Your task to perform on an android device: Open calendar and show me the third week of next month Image 0: 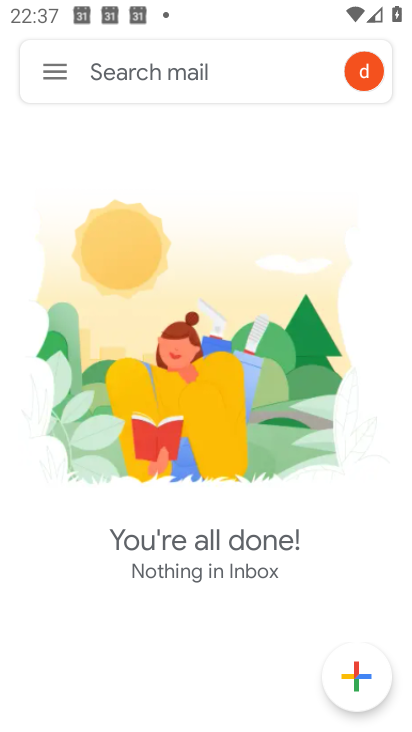
Step 0: press home button
Your task to perform on an android device: Open calendar and show me the third week of next month Image 1: 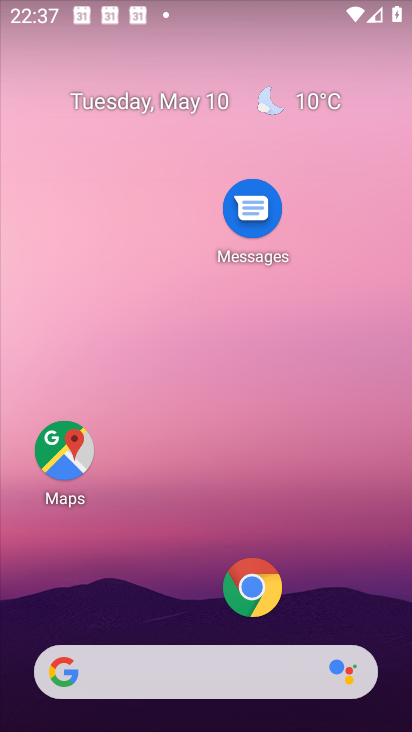
Step 1: drag from (171, 540) to (239, 175)
Your task to perform on an android device: Open calendar and show me the third week of next month Image 2: 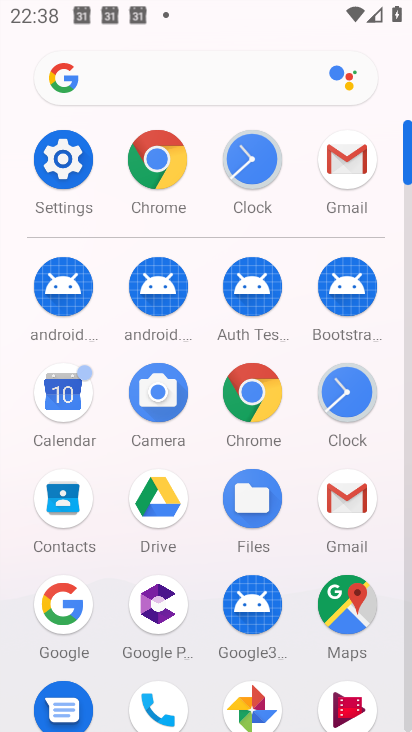
Step 2: click (77, 413)
Your task to perform on an android device: Open calendar and show me the third week of next month Image 3: 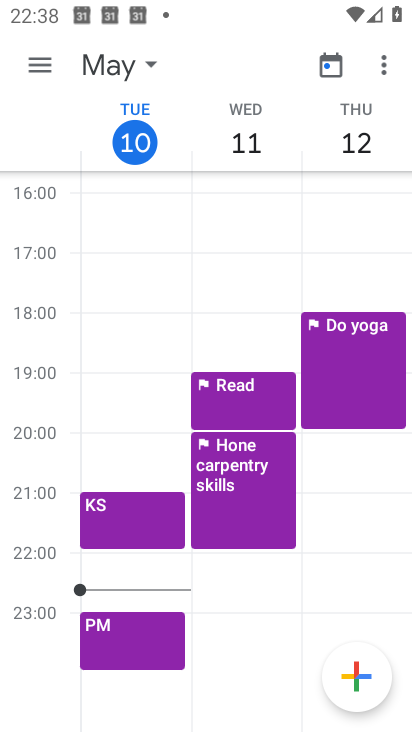
Step 3: click (52, 66)
Your task to perform on an android device: Open calendar and show me the third week of next month Image 4: 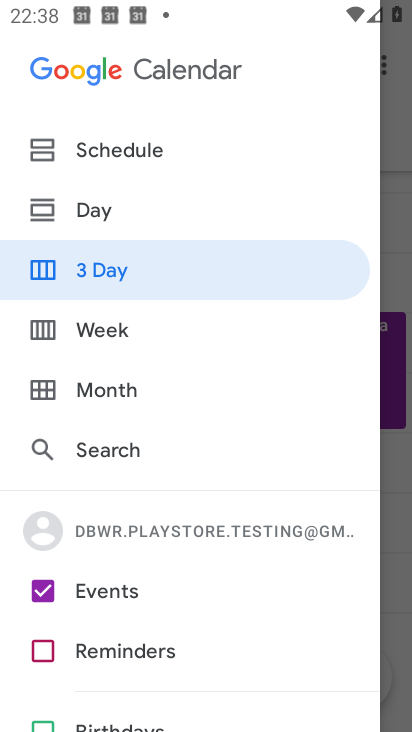
Step 4: click (120, 346)
Your task to perform on an android device: Open calendar and show me the third week of next month Image 5: 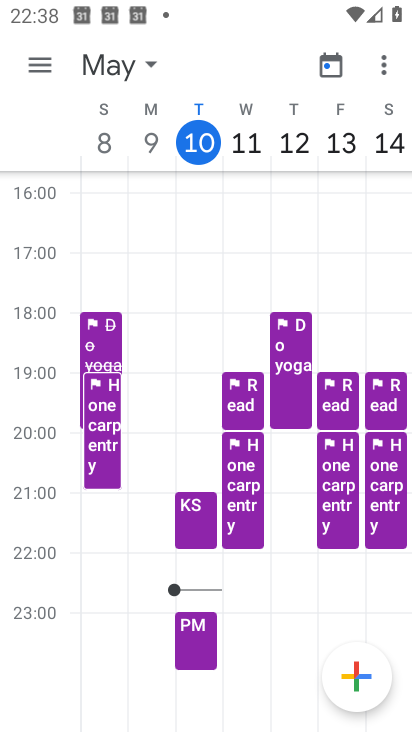
Step 5: task complete